Your task to perform on an android device: Search for top rated pizza restaurants on Maps Image 0: 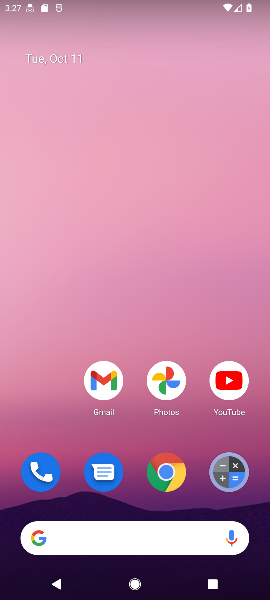
Step 0: drag from (131, 503) to (128, 121)
Your task to perform on an android device: Search for top rated pizza restaurants on Maps Image 1: 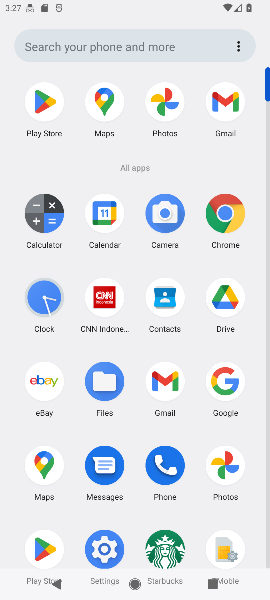
Step 1: click (108, 104)
Your task to perform on an android device: Search for top rated pizza restaurants on Maps Image 2: 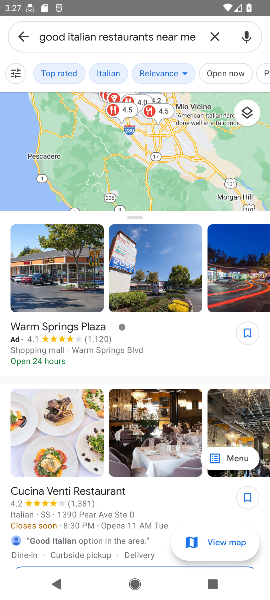
Step 2: click (217, 33)
Your task to perform on an android device: Search for top rated pizza restaurants on Maps Image 3: 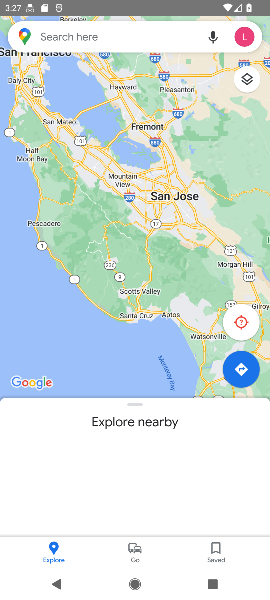
Step 3: click (92, 29)
Your task to perform on an android device: Search for top rated pizza restaurants on Maps Image 4: 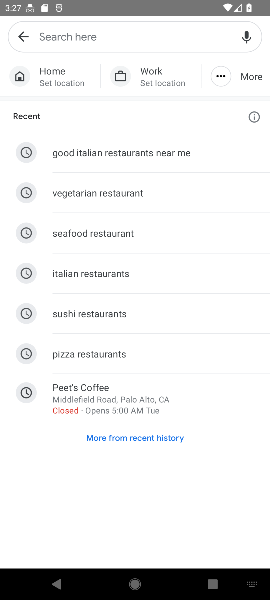
Step 4: type " top rated pizza restaurants "
Your task to perform on an android device: Search for top rated pizza restaurants on Maps Image 5: 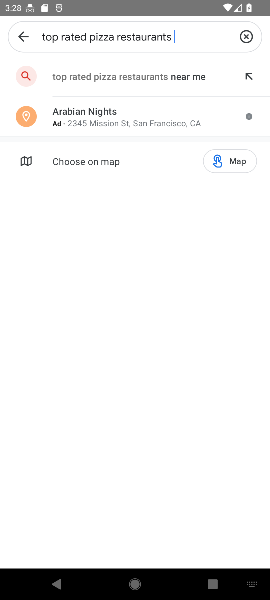
Step 5: click (128, 86)
Your task to perform on an android device: Search for top rated pizza restaurants on Maps Image 6: 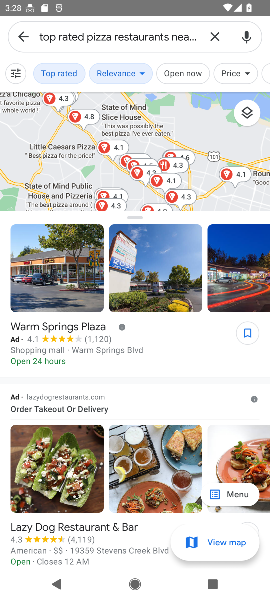
Step 6: task complete